Your task to perform on an android device: turn on translation in the chrome app Image 0: 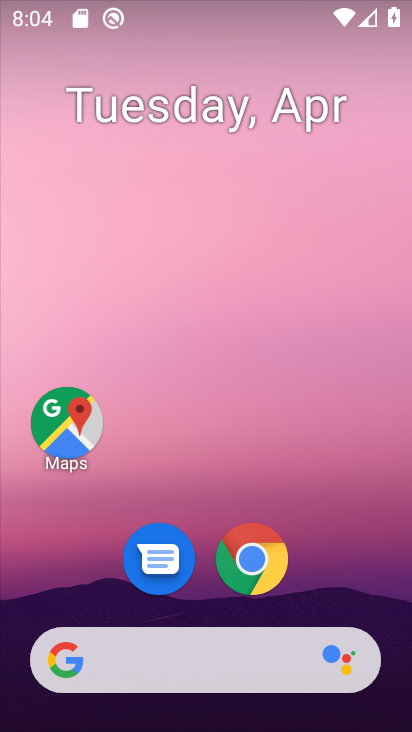
Step 0: drag from (232, 697) to (204, 126)
Your task to perform on an android device: turn on translation in the chrome app Image 1: 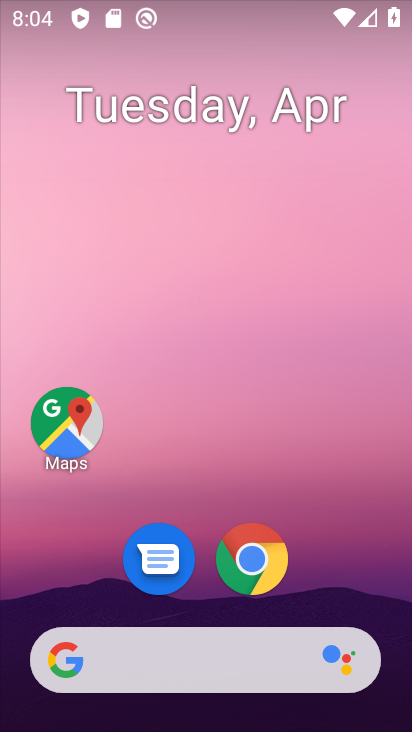
Step 1: drag from (261, 699) to (241, 81)
Your task to perform on an android device: turn on translation in the chrome app Image 2: 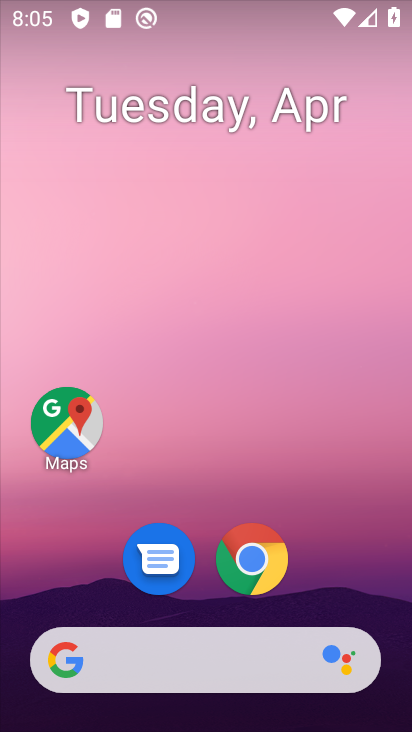
Step 2: click (254, 554)
Your task to perform on an android device: turn on translation in the chrome app Image 3: 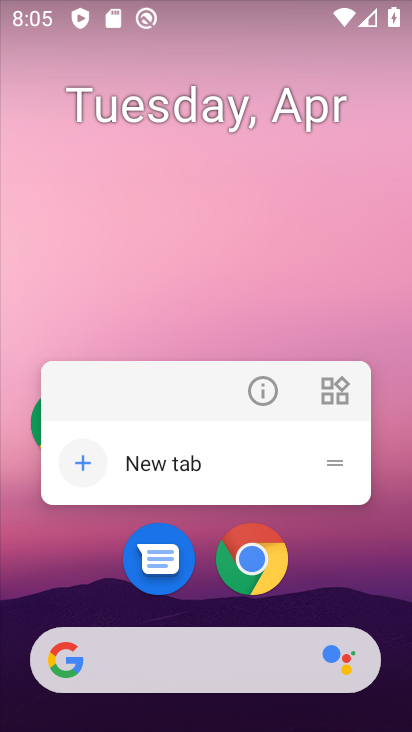
Step 3: click (254, 554)
Your task to perform on an android device: turn on translation in the chrome app Image 4: 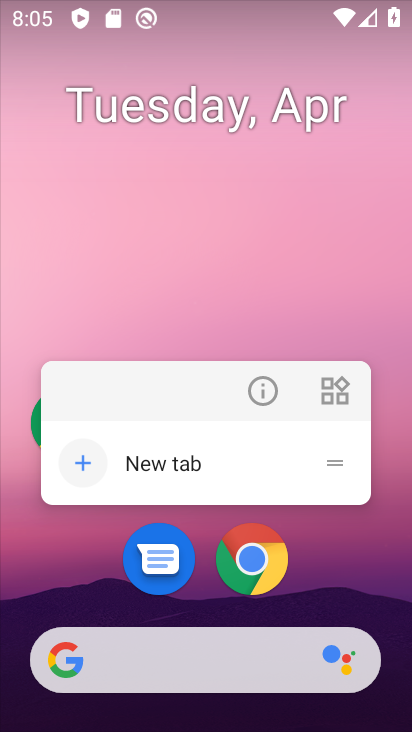
Step 4: drag from (231, 565) to (367, 536)
Your task to perform on an android device: turn on translation in the chrome app Image 5: 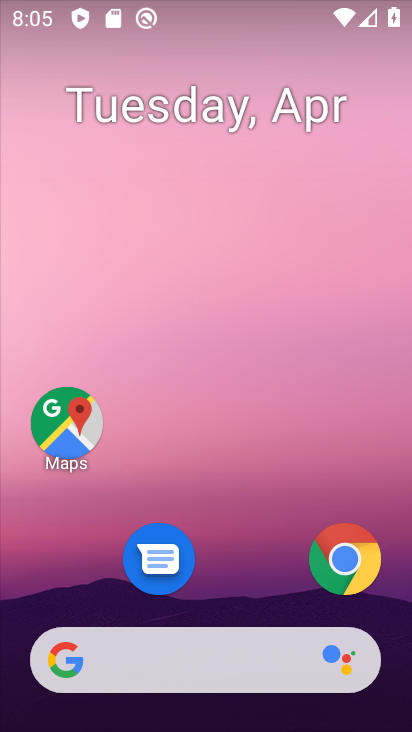
Step 5: click (339, 555)
Your task to perform on an android device: turn on translation in the chrome app Image 6: 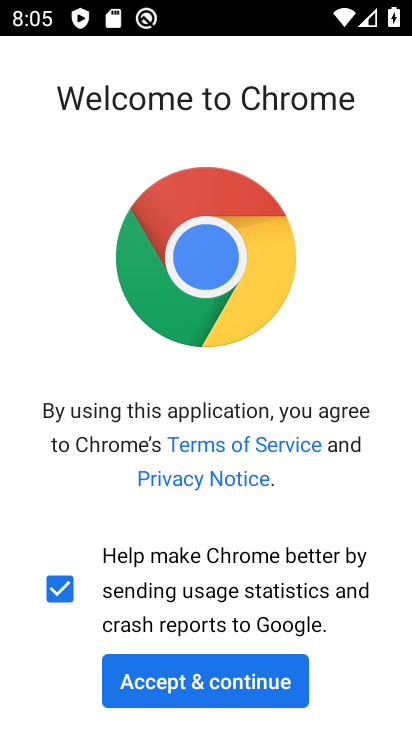
Step 6: click (197, 664)
Your task to perform on an android device: turn on translation in the chrome app Image 7: 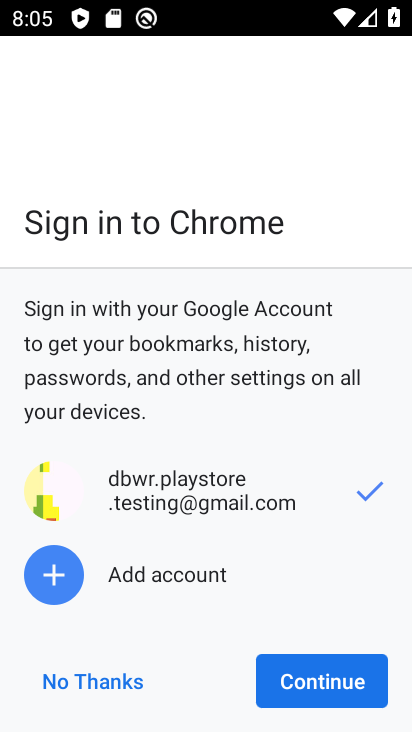
Step 7: click (318, 675)
Your task to perform on an android device: turn on translation in the chrome app Image 8: 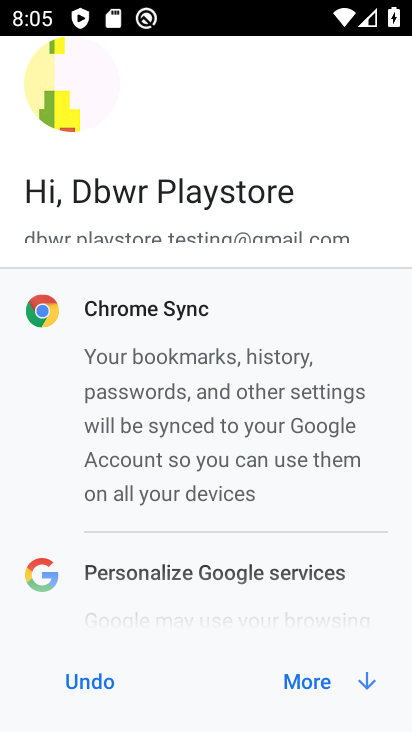
Step 8: click (361, 686)
Your task to perform on an android device: turn on translation in the chrome app Image 9: 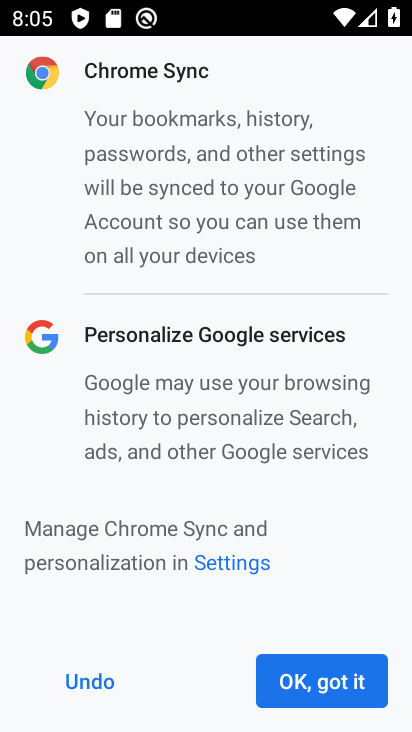
Step 9: click (342, 696)
Your task to perform on an android device: turn on translation in the chrome app Image 10: 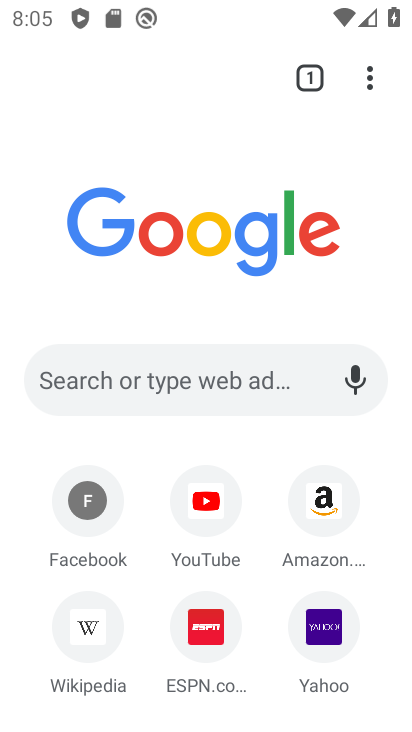
Step 10: click (370, 76)
Your task to perform on an android device: turn on translation in the chrome app Image 11: 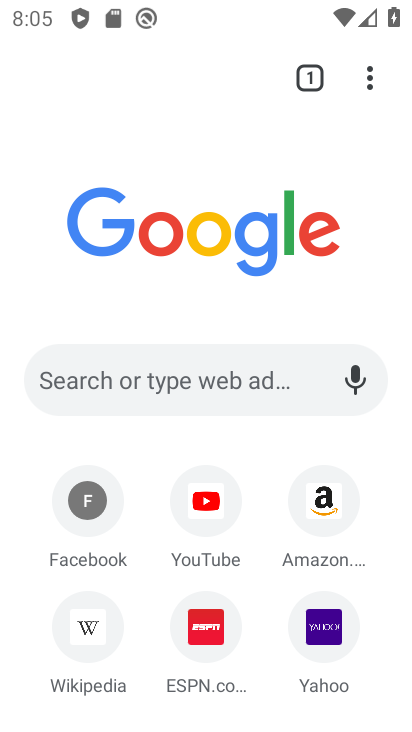
Step 11: click (369, 69)
Your task to perform on an android device: turn on translation in the chrome app Image 12: 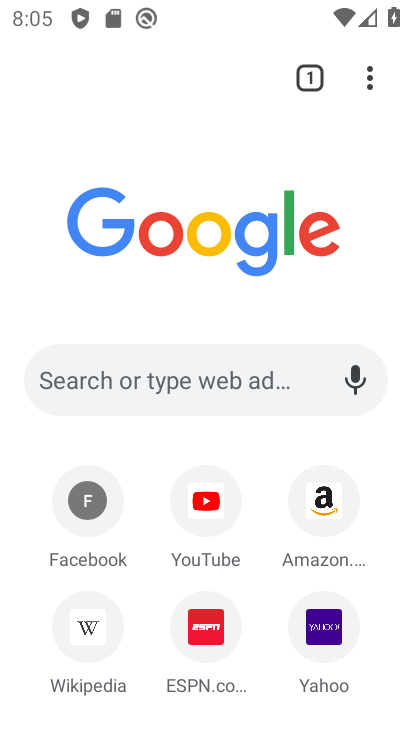
Step 12: click (372, 73)
Your task to perform on an android device: turn on translation in the chrome app Image 13: 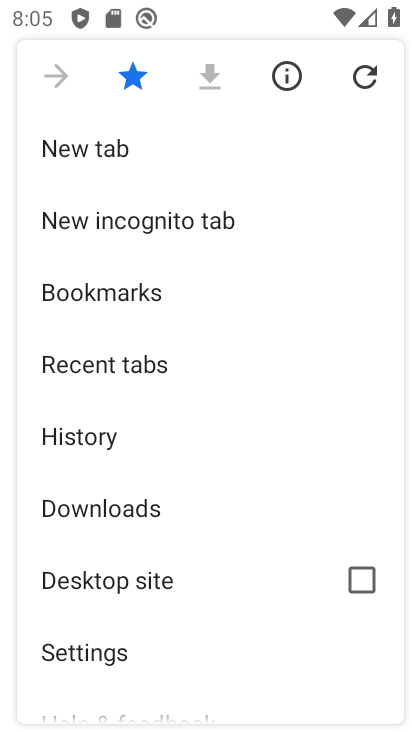
Step 13: click (92, 647)
Your task to perform on an android device: turn on translation in the chrome app Image 14: 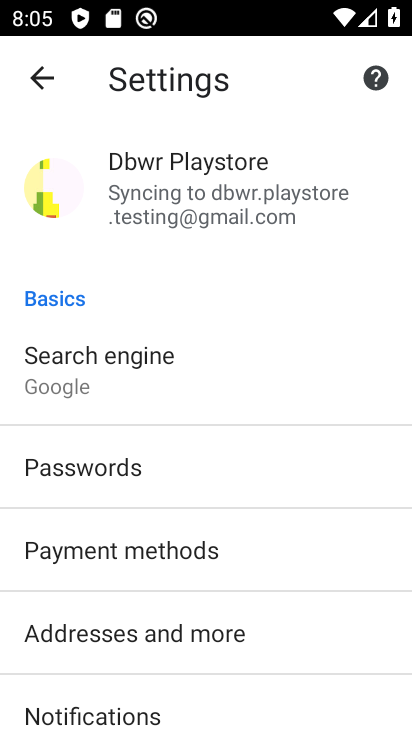
Step 14: drag from (96, 699) to (128, 312)
Your task to perform on an android device: turn on translation in the chrome app Image 15: 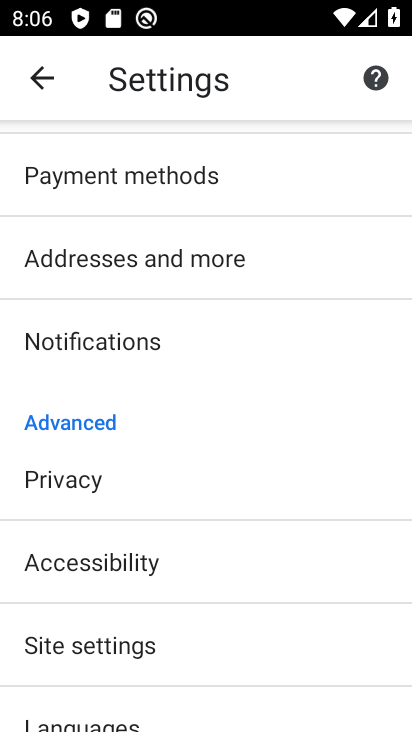
Step 15: click (96, 718)
Your task to perform on an android device: turn on translation in the chrome app Image 16: 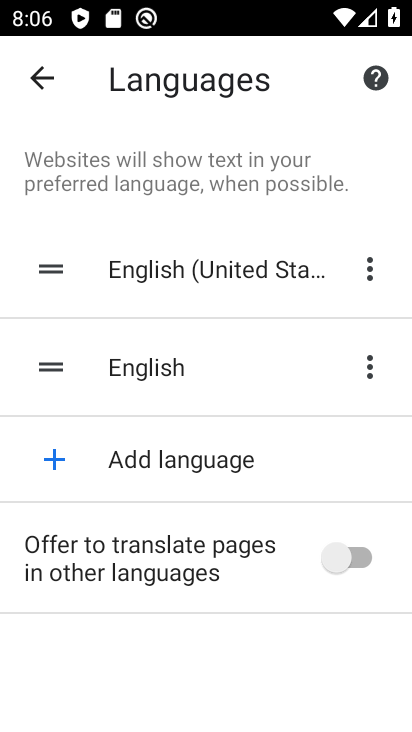
Step 16: click (319, 545)
Your task to perform on an android device: turn on translation in the chrome app Image 17: 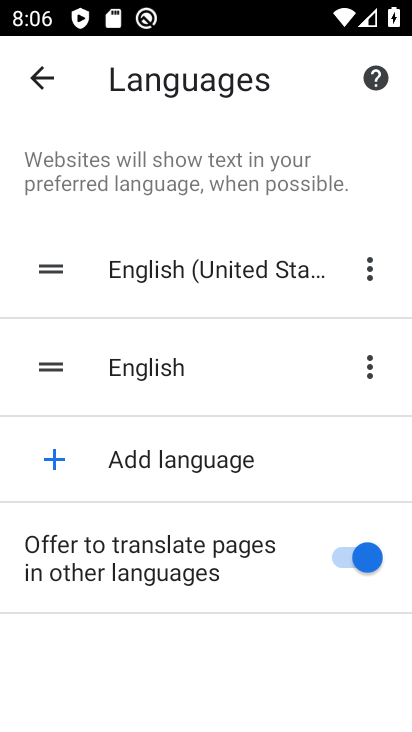
Step 17: task complete